Your task to perform on an android device: toggle show notifications on the lock screen Image 0: 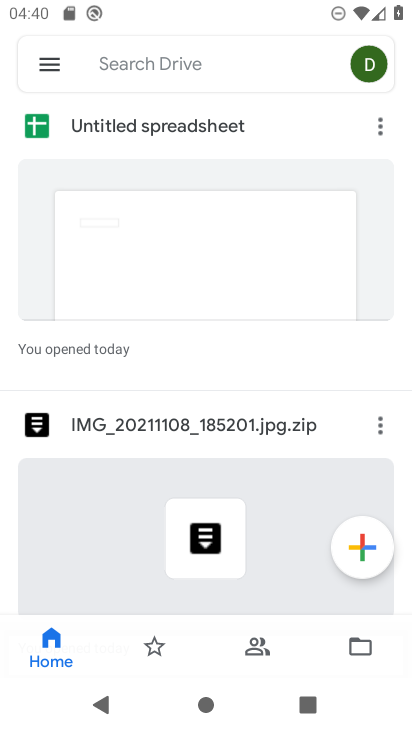
Step 0: press home button
Your task to perform on an android device: toggle show notifications on the lock screen Image 1: 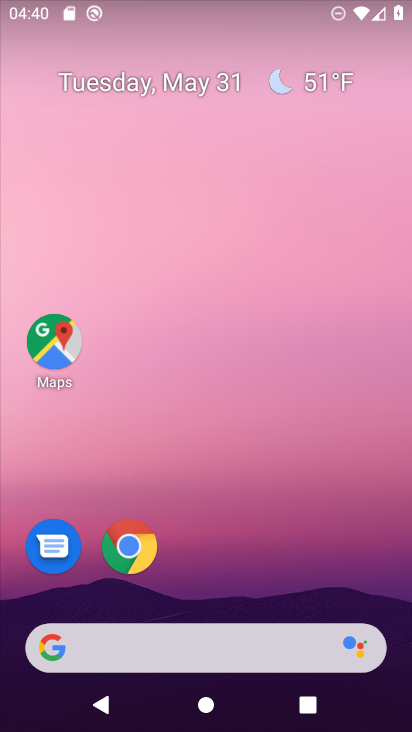
Step 1: drag from (201, 580) to (251, 265)
Your task to perform on an android device: toggle show notifications on the lock screen Image 2: 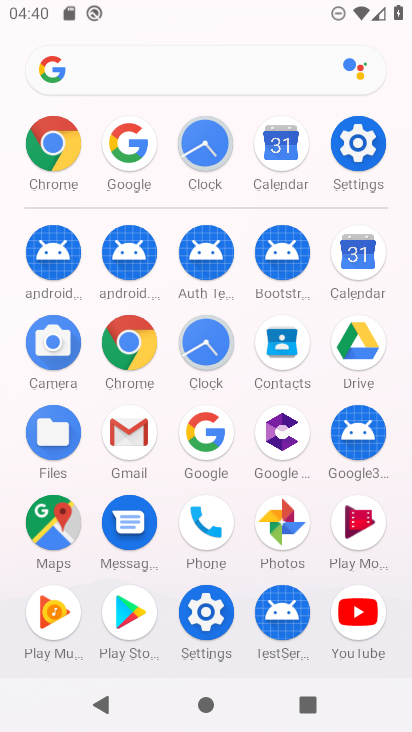
Step 2: click (345, 161)
Your task to perform on an android device: toggle show notifications on the lock screen Image 3: 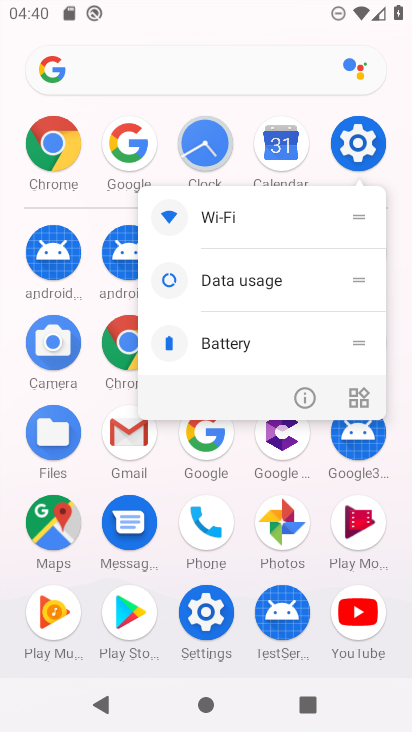
Step 3: click (359, 145)
Your task to perform on an android device: toggle show notifications on the lock screen Image 4: 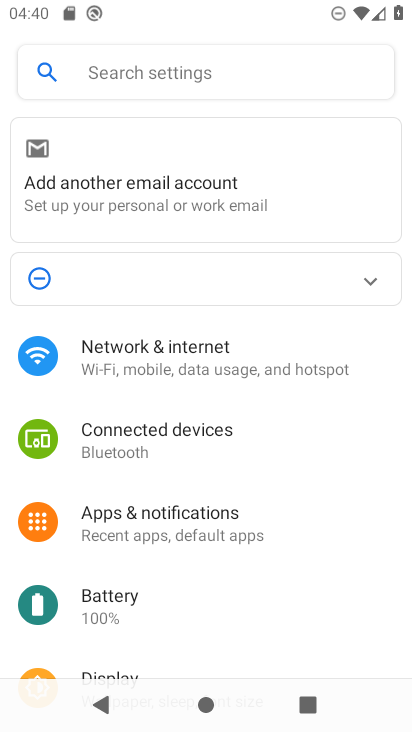
Step 4: drag from (173, 585) to (142, 461)
Your task to perform on an android device: toggle show notifications on the lock screen Image 5: 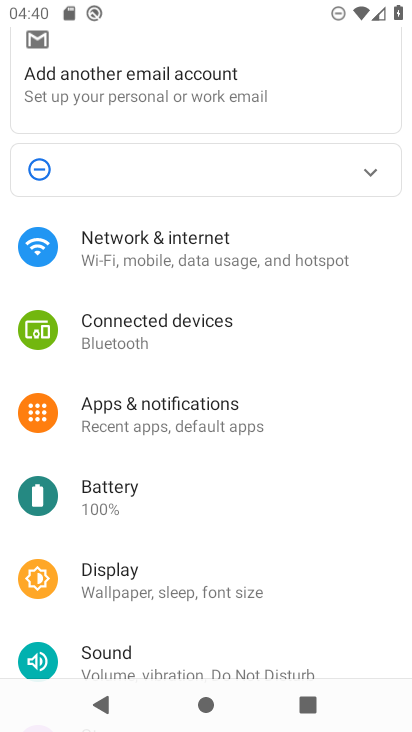
Step 5: click (126, 423)
Your task to perform on an android device: toggle show notifications on the lock screen Image 6: 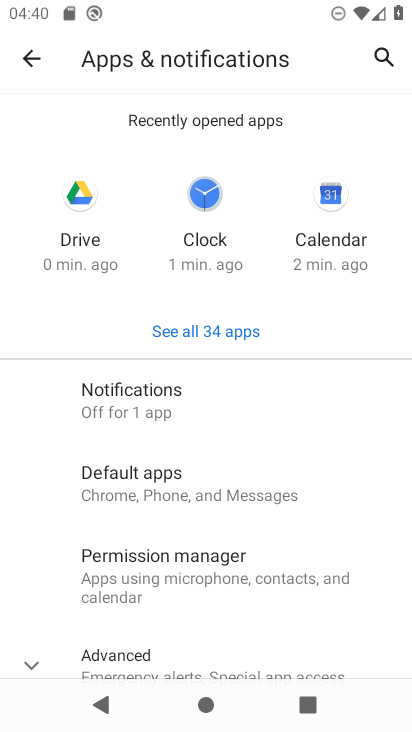
Step 6: click (128, 418)
Your task to perform on an android device: toggle show notifications on the lock screen Image 7: 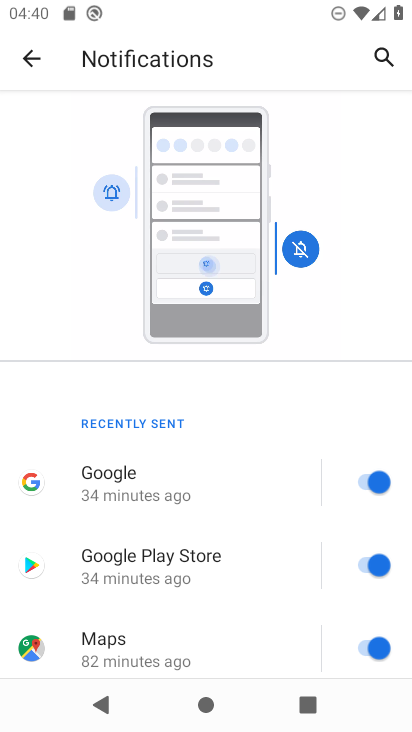
Step 7: drag from (158, 549) to (148, 423)
Your task to perform on an android device: toggle show notifications on the lock screen Image 8: 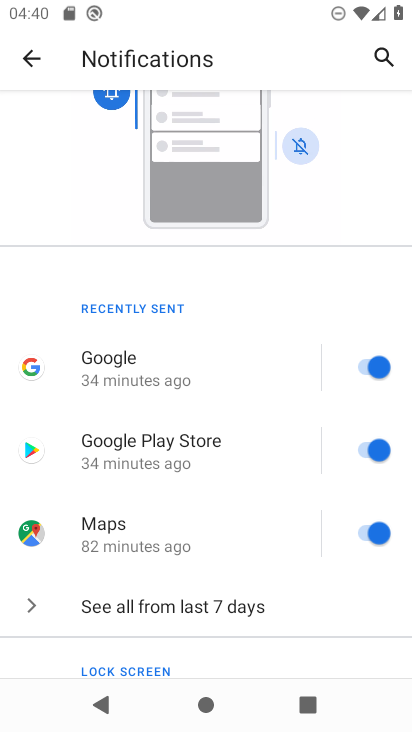
Step 8: drag from (145, 600) to (143, 410)
Your task to perform on an android device: toggle show notifications on the lock screen Image 9: 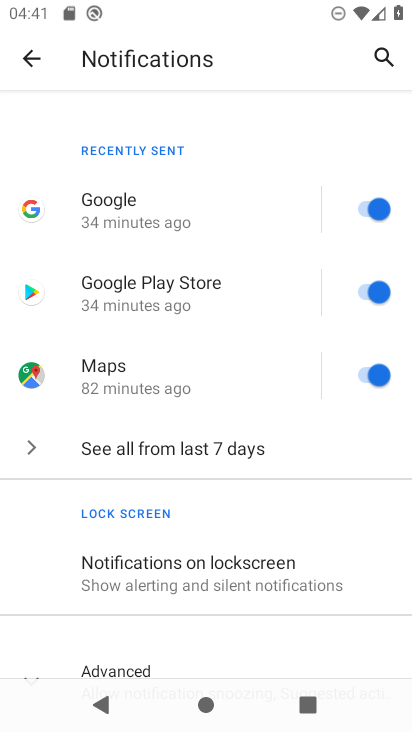
Step 9: click (172, 582)
Your task to perform on an android device: toggle show notifications on the lock screen Image 10: 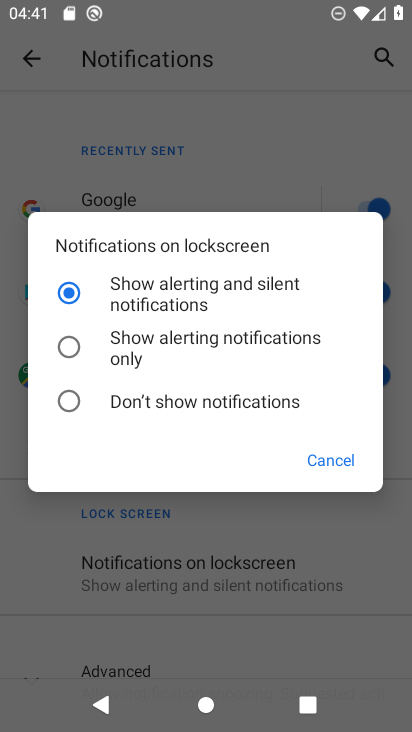
Step 10: click (86, 430)
Your task to perform on an android device: toggle show notifications on the lock screen Image 11: 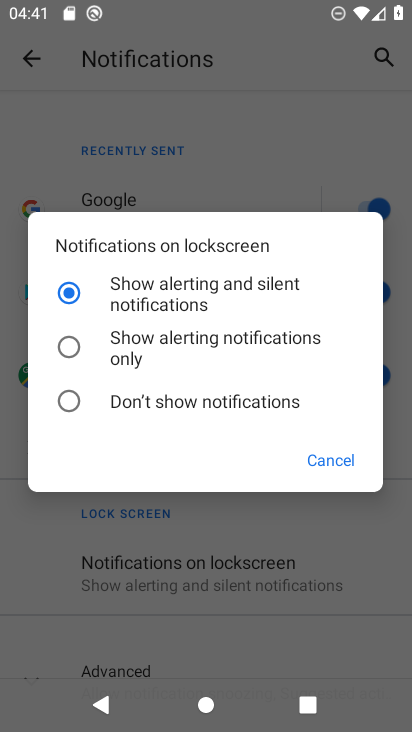
Step 11: click (59, 388)
Your task to perform on an android device: toggle show notifications on the lock screen Image 12: 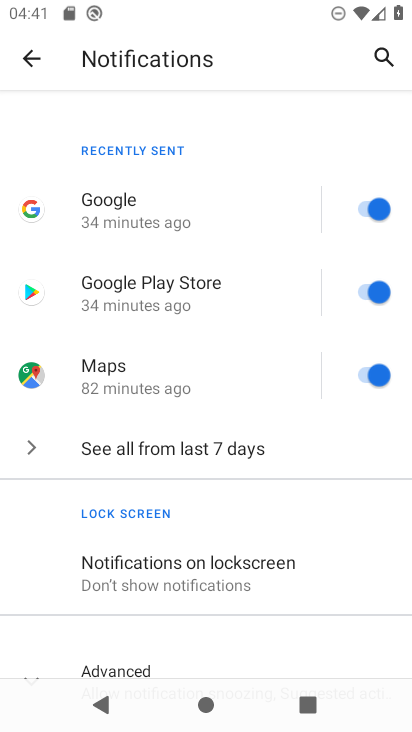
Step 12: task complete